Your task to perform on an android device: toggle translation in the chrome app Image 0: 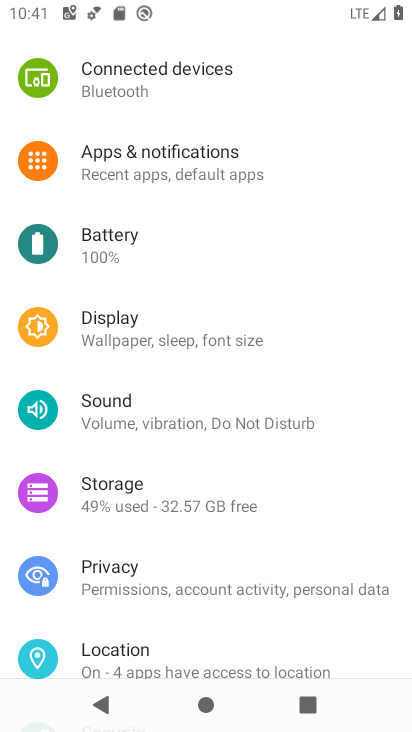
Step 0: press home button
Your task to perform on an android device: toggle translation in the chrome app Image 1: 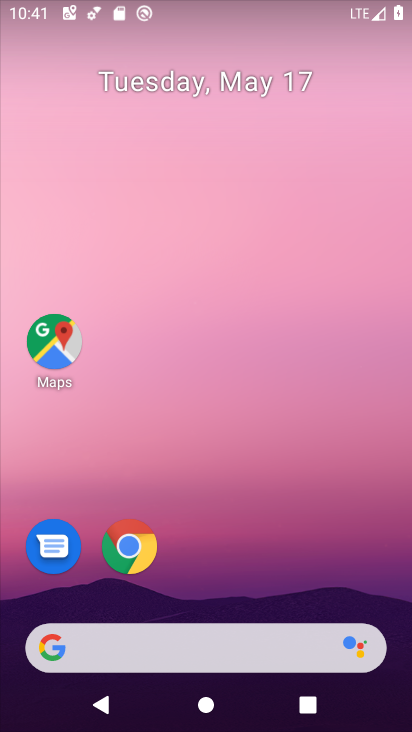
Step 1: click (131, 545)
Your task to perform on an android device: toggle translation in the chrome app Image 2: 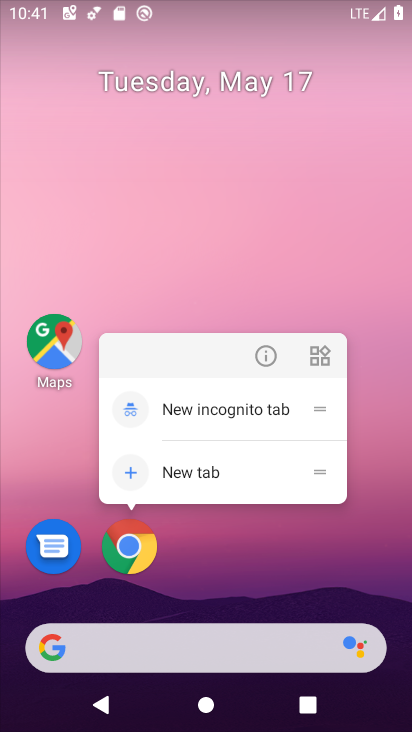
Step 2: click (129, 536)
Your task to perform on an android device: toggle translation in the chrome app Image 3: 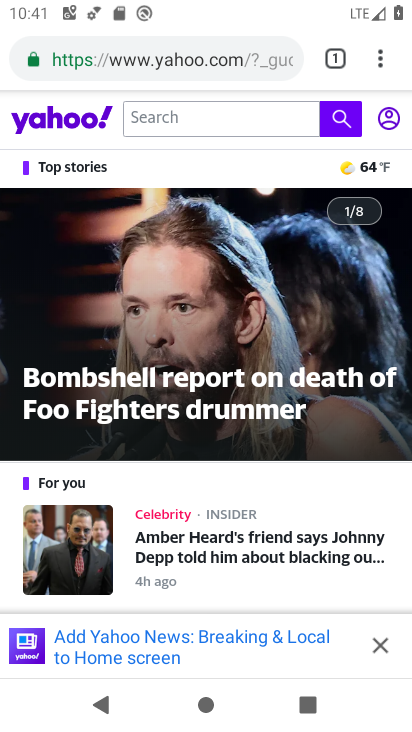
Step 3: click (378, 58)
Your task to perform on an android device: toggle translation in the chrome app Image 4: 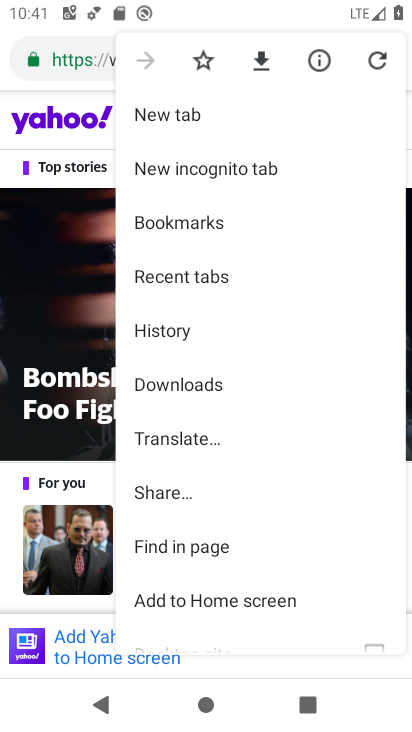
Step 4: drag from (211, 535) to (237, 214)
Your task to perform on an android device: toggle translation in the chrome app Image 5: 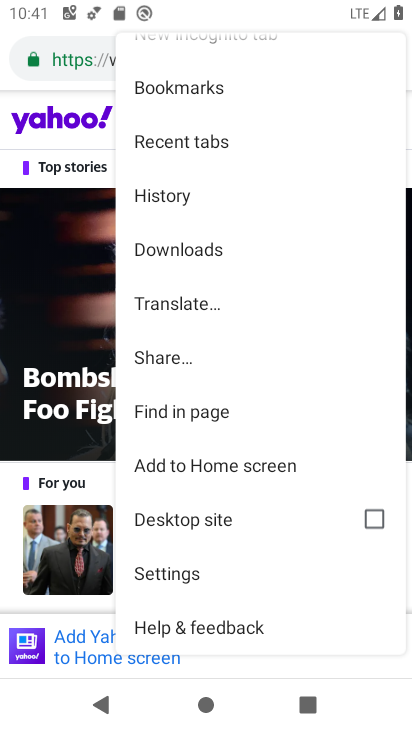
Step 5: click (163, 576)
Your task to perform on an android device: toggle translation in the chrome app Image 6: 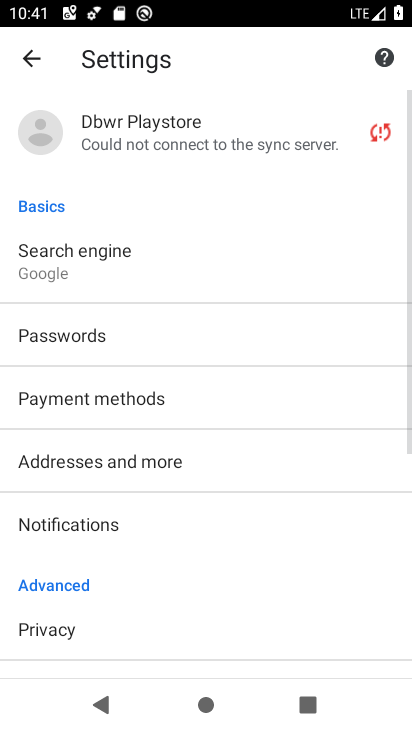
Step 6: drag from (158, 576) to (197, 289)
Your task to perform on an android device: toggle translation in the chrome app Image 7: 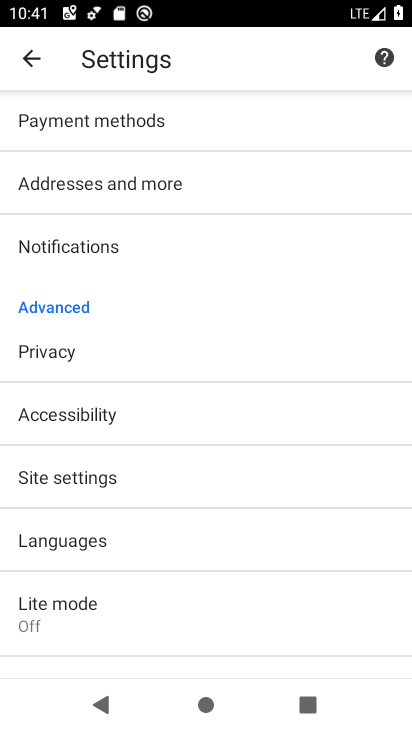
Step 7: drag from (81, 590) to (104, 478)
Your task to perform on an android device: toggle translation in the chrome app Image 8: 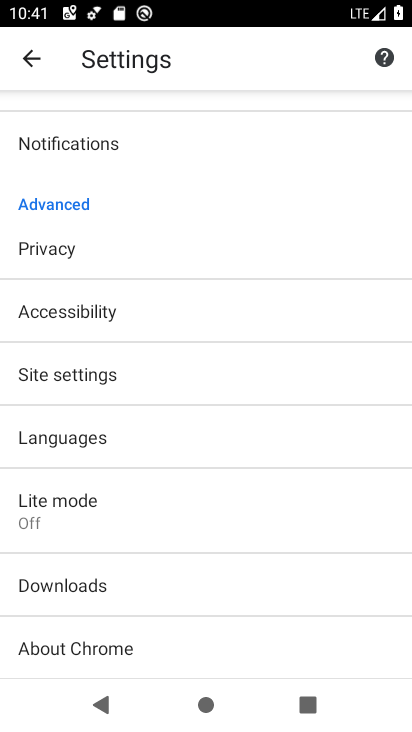
Step 8: click (80, 440)
Your task to perform on an android device: toggle translation in the chrome app Image 9: 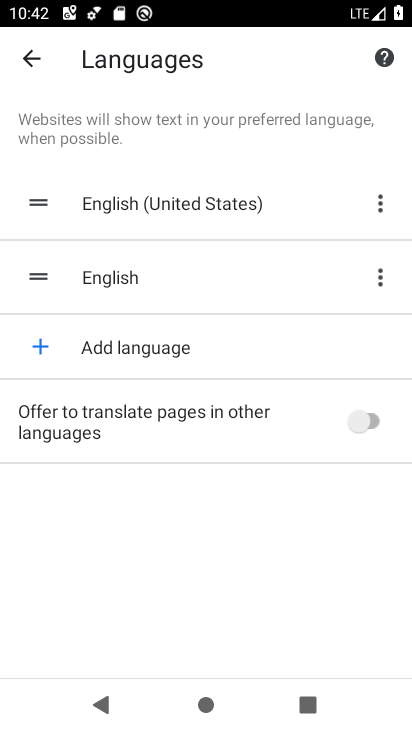
Step 9: click (339, 425)
Your task to perform on an android device: toggle translation in the chrome app Image 10: 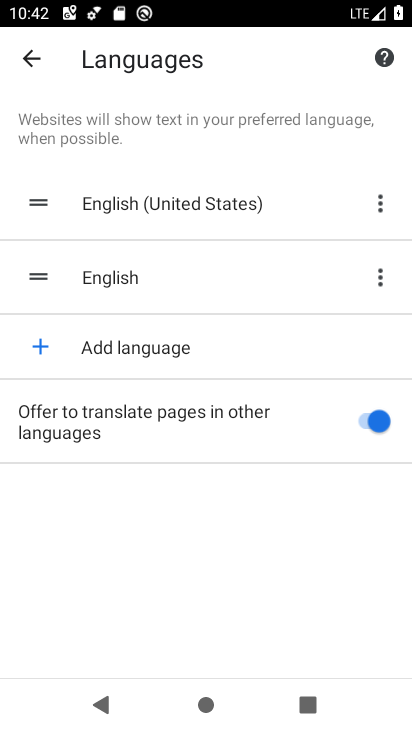
Step 10: task complete